Your task to perform on an android device: add a label to a message in the gmail app Image 0: 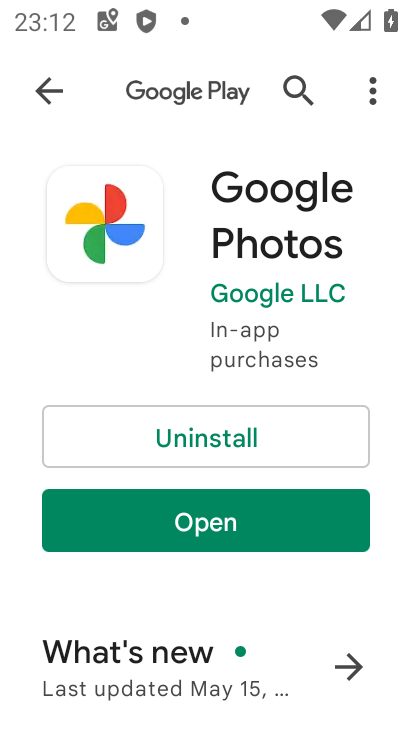
Step 0: press home button
Your task to perform on an android device: add a label to a message in the gmail app Image 1: 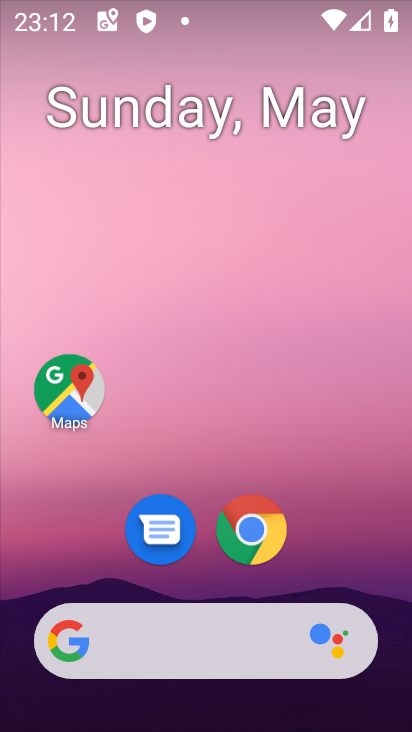
Step 1: drag from (378, 541) to (272, 69)
Your task to perform on an android device: add a label to a message in the gmail app Image 2: 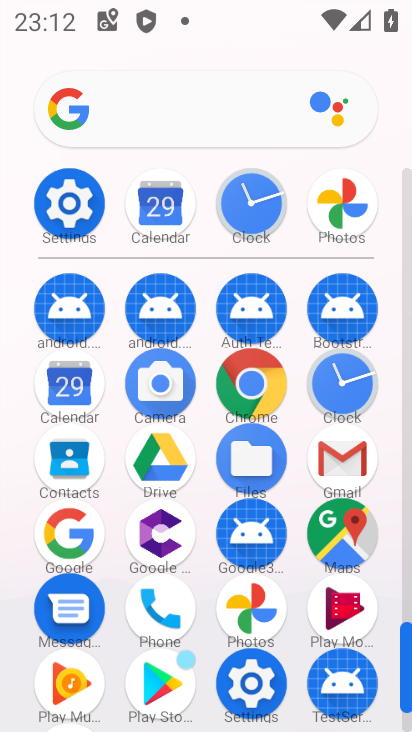
Step 2: click (343, 469)
Your task to perform on an android device: add a label to a message in the gmail app Image 3: 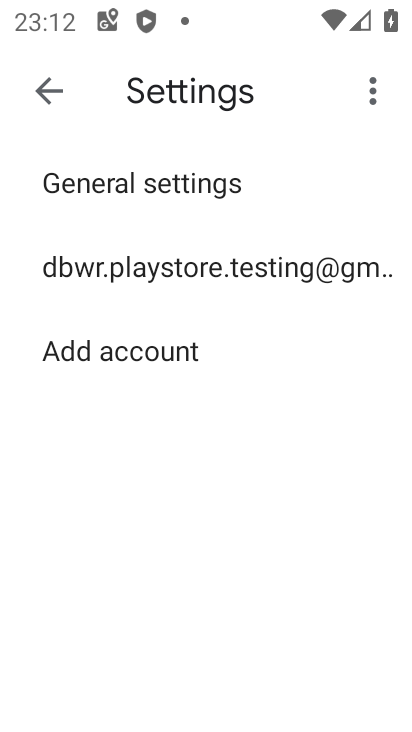
Step 3: click (32, 105)
Your task to perform on an android device: add a label to a message in the gmail app Image 4: 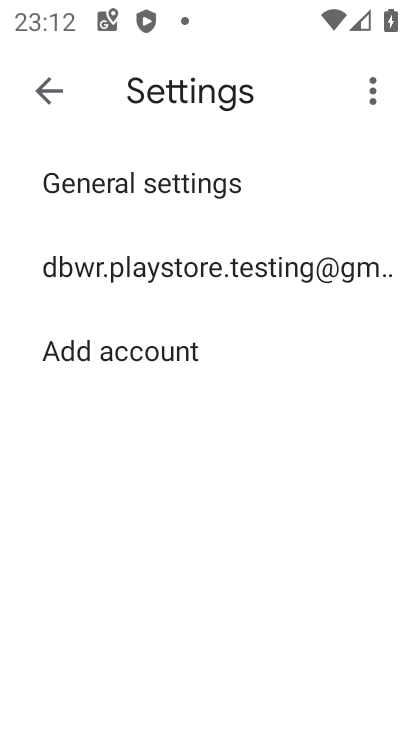
Step 4: click (66, 86)
Your task to perform on an android device: add a label to a message in the gmail app Image 5: 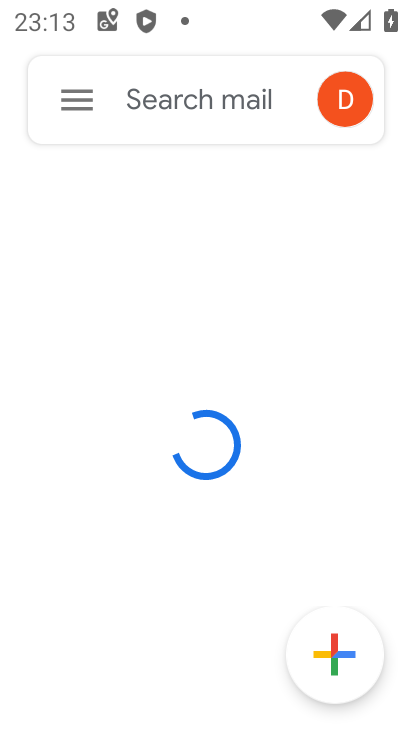
Step 5: task complete